Your task to perform on an android device: Open battery settings Image 0: 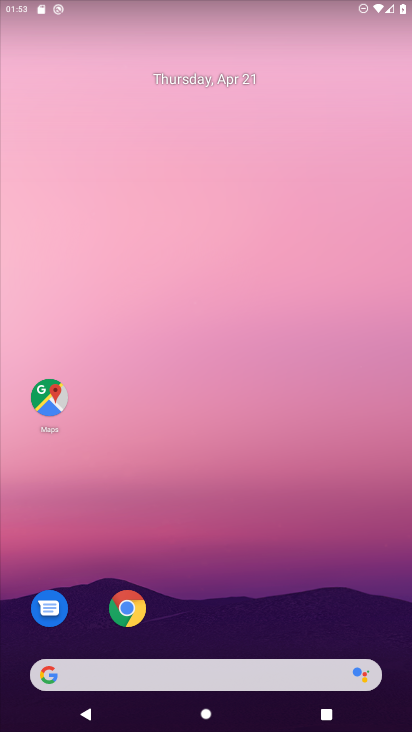
Step 0: click (281, 277)
Your task to perform on an android device: Open battery settings Image 1: 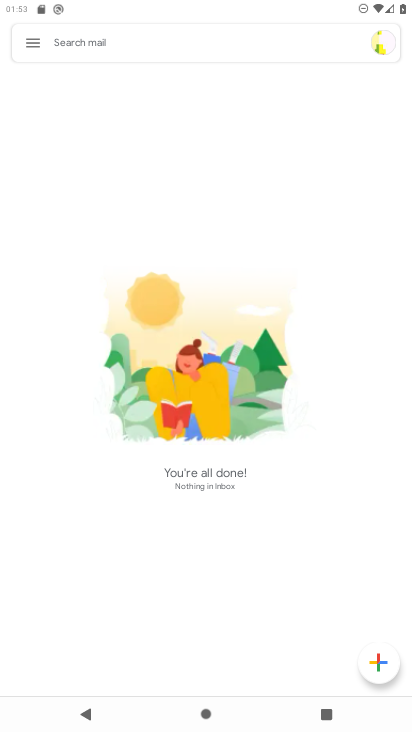
Step 1: press home button
Your task to perform on an android device: Open battery settings Image 2: 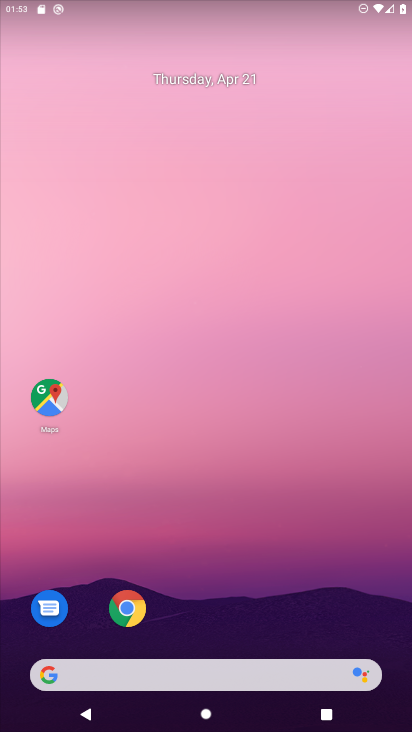
Step 2: drag from (258, 531) to (283, 294)
Your task to perform on an android device: Open battery settings Image 3: 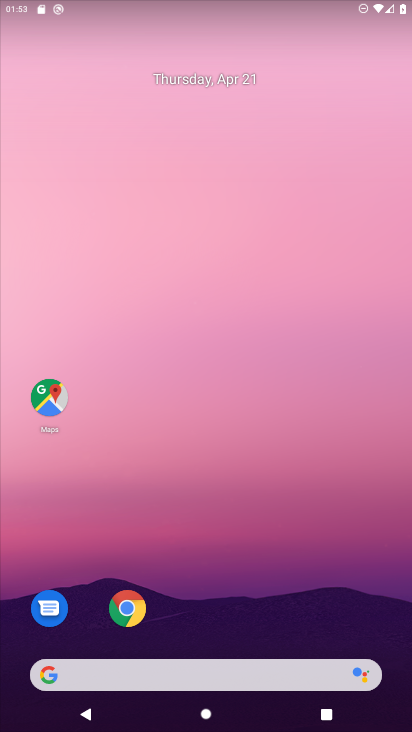
Step 3: drag from (222, 643) to (247, 133)
Your task to perform on an android device: Open battery settings Image 4: 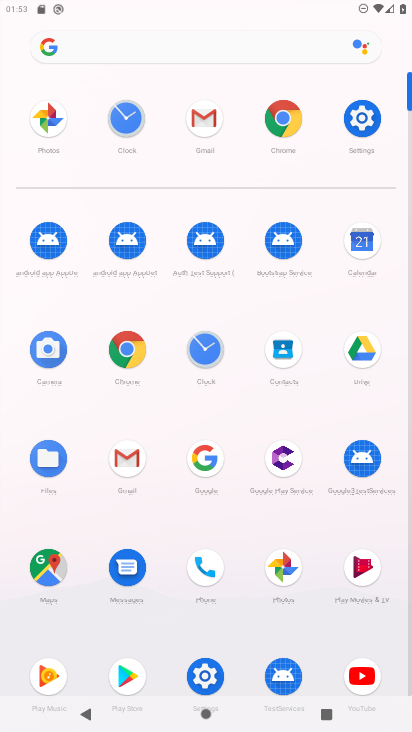
Step 4: click (362, 114)
Your task to perform on an android device: Open battery settings Image 5: 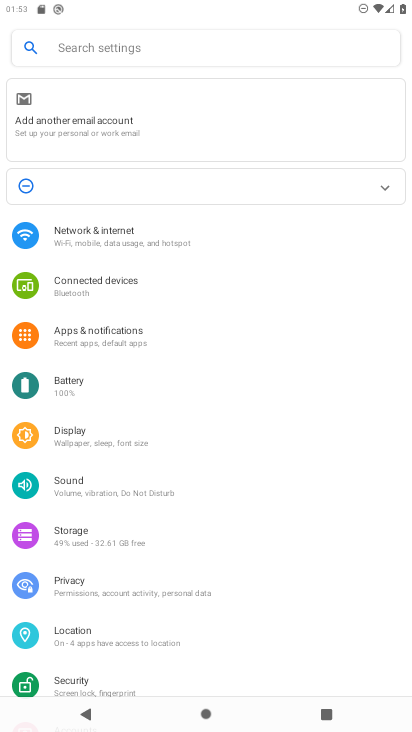
Step 5: click (76, 385)
Your task to perform on an android device: Open battery settings Image 6: 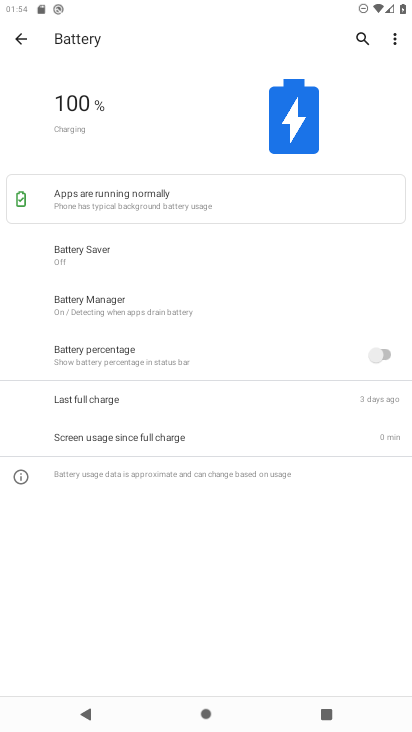
Step 6: task complete